Your task to perform on an android device: open a bookmark in the chrome app Image 0: 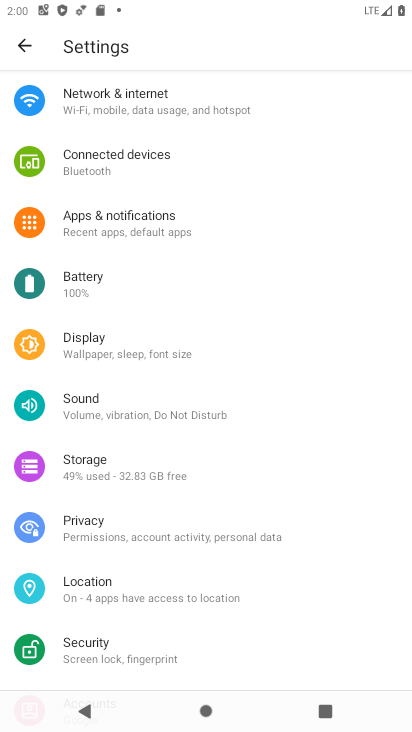
Step 0: press home button
Your task to perform on an android device: open a bookmark in the chrome app Image 1: 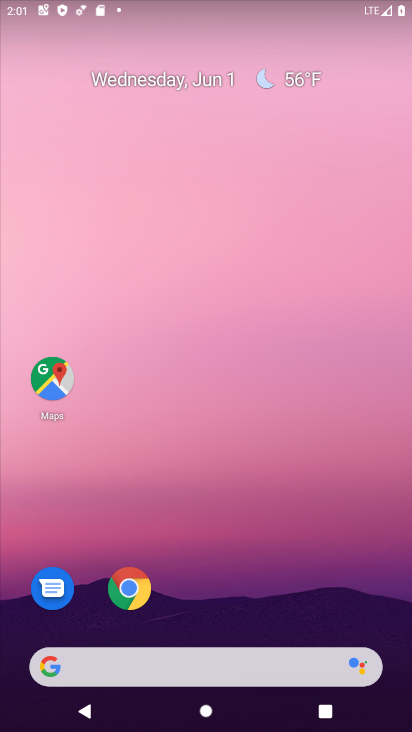
Step 1: click (121, 601)
Your task to perform on an android device: open a bookmark in the chrome app Image 2: 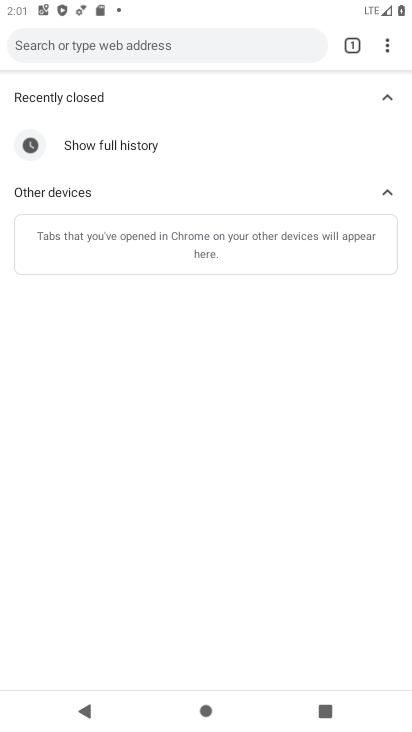
Step 2: click (382, 37)
Your task to perform on an android device: open a bookmark in the chrome app Image 3: 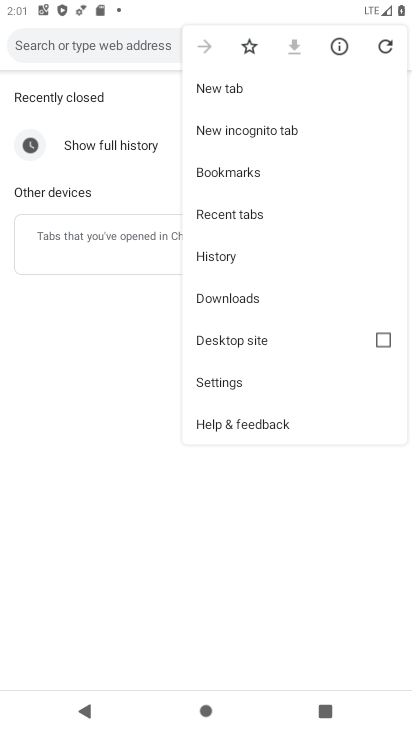
Step 3: click (246, 166)
Your task to perform on an android device: open a bookmark in the chrome app Image 4: 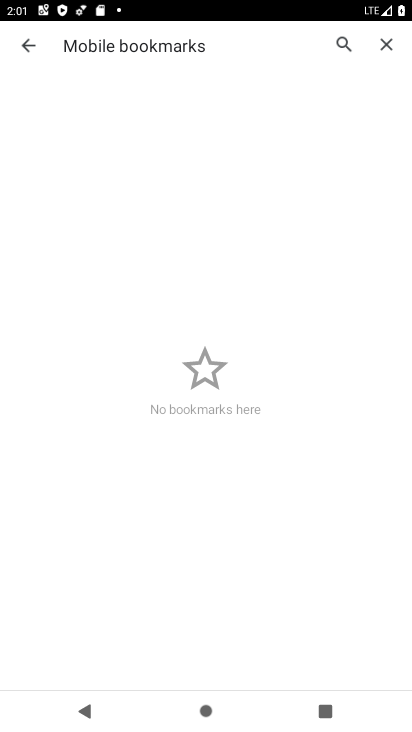
Step 4: click (253, 170)
Your task to perform on an android device: open a bookmark in the chrome app Image 5: 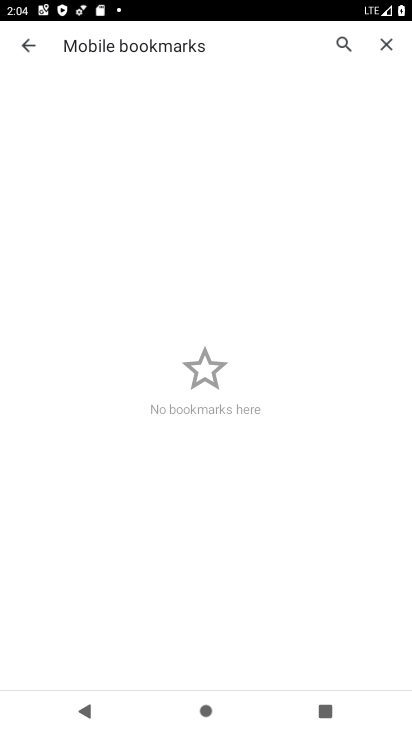
Step 5: task complete